Your task to perform on an android device: Go to Wikipedia Image 0: 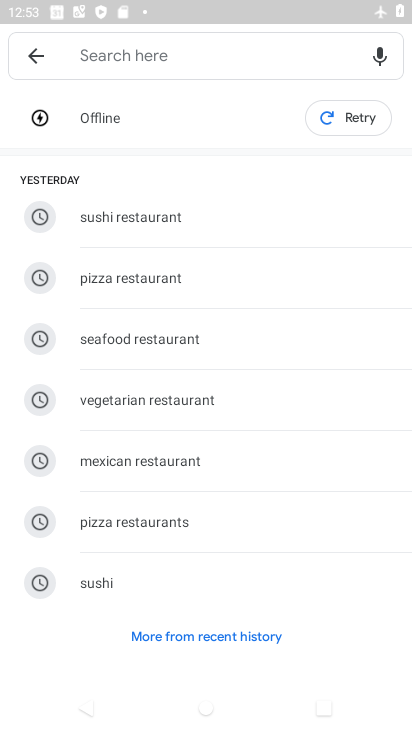
Step 0: press home button
Your task to perform on an android device: Go to Wikipedia Image 1: 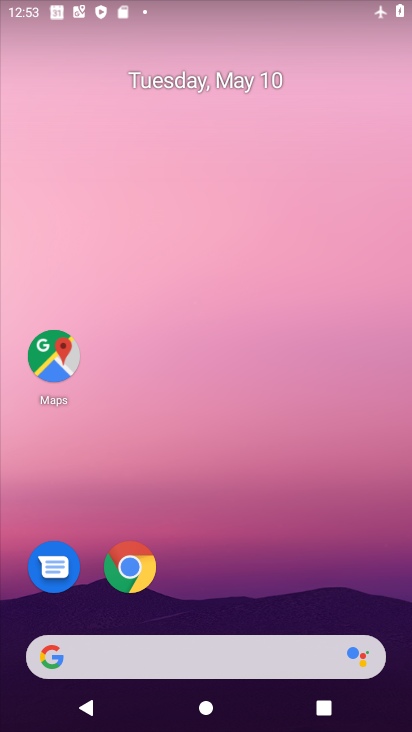
Step 1: drag from (382, 607) to (282, 14)
Your task to perform on an android device: Go to Wikipedia Image 2: 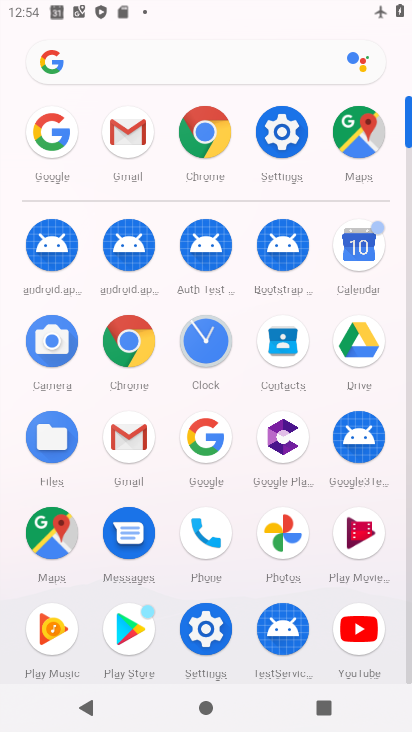
Step 2: click (126, 358)
Your task to perform on an android device: Go to Wikipedia Image 3: 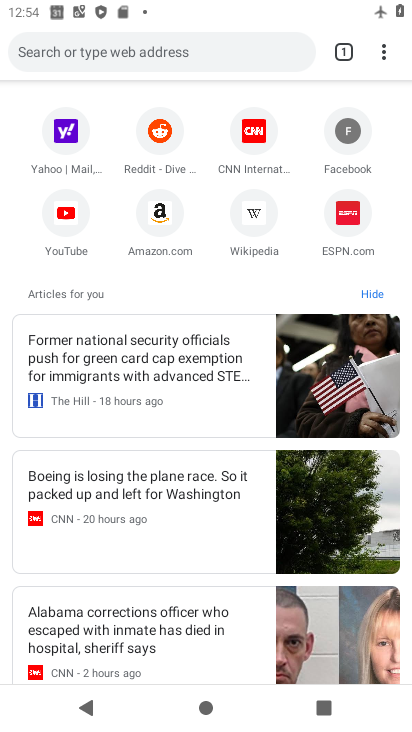
Step 3: click (179, 67)
Your task to perform on an android device: Go to Wikipedia Image 4: 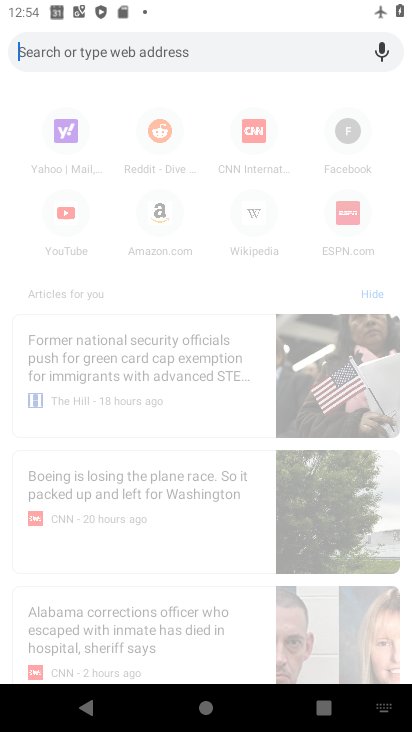
Step 4: type "wikipedia"
Your task to perform on an android device: Go to Wikipedia Image 5: 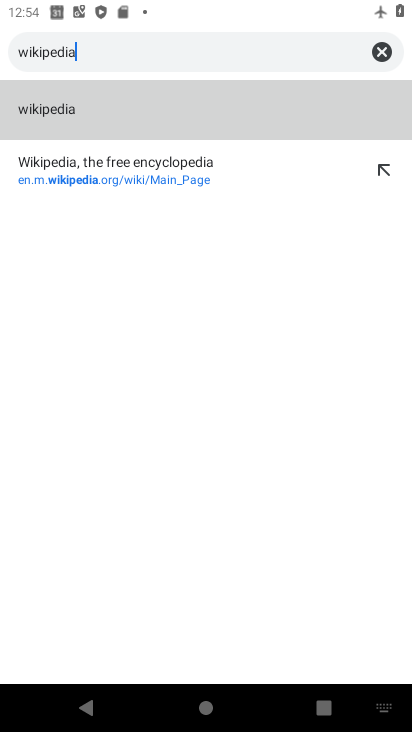
Step 5: click (94, 108)
Your task to perform on an android device: Go to Wikipedia Image 6: 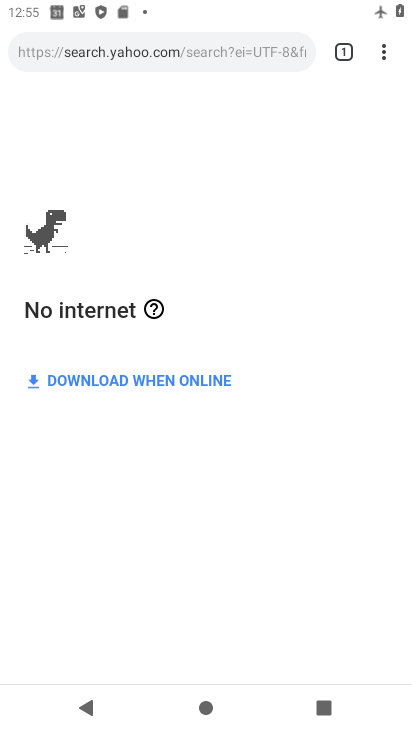
Step 6: task complete